Your task to perform on an android device: turn on improve location accuracy Image 0: 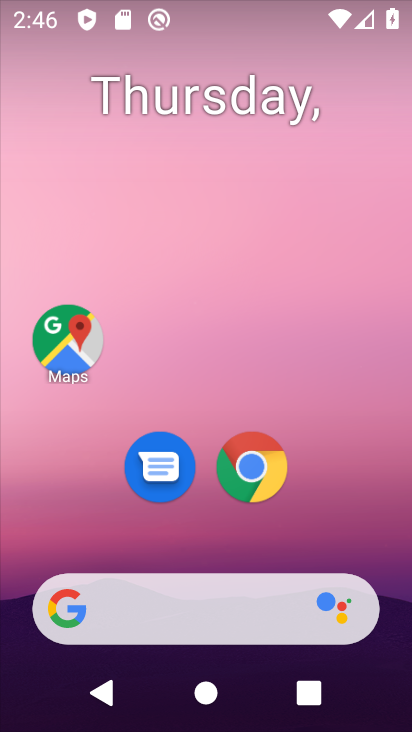
Step 0: drag from (193, 651) to (154, 58)
Your task to perform on an android device: turn on improve location accuracy Image 1: 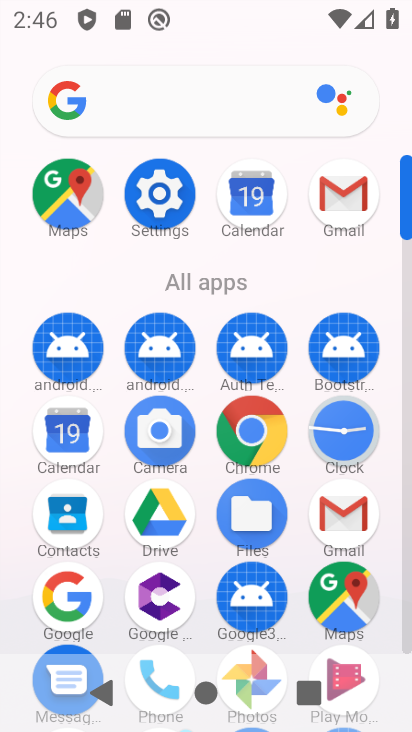
Step 1: click (160, 196)
Your task to perform on an android device: turn on improve location accuracy Image 2: 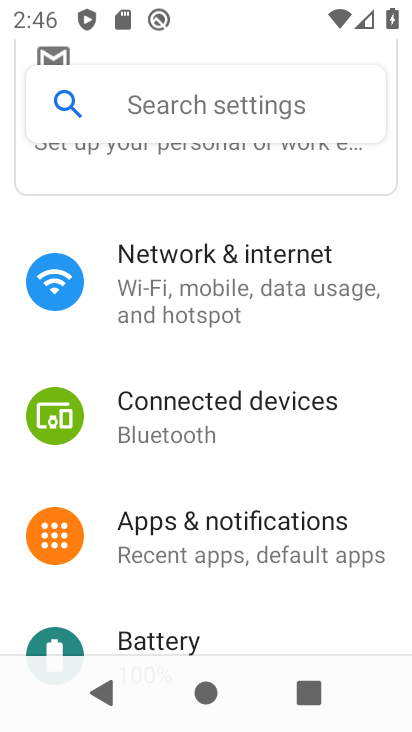
Step 2: drag from (215, 562) to (201, 3)
Your task to perform on an android device: turn on improve location accuracy Image 3: 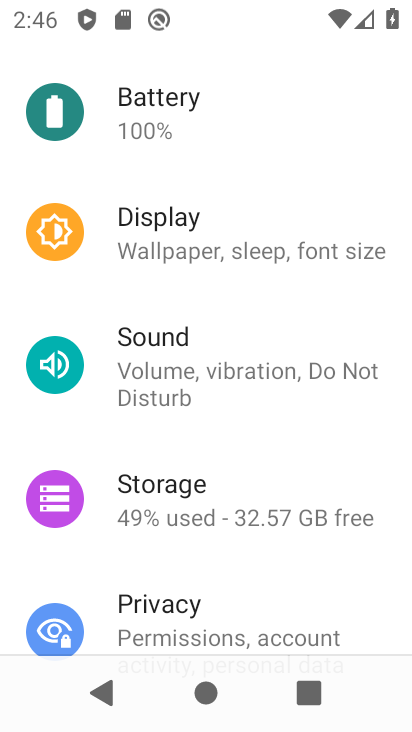
Step 3: drag from (266, 567) to (238, 208)
Your task to perform on an android device: turn on improve location accuracy Image 4: 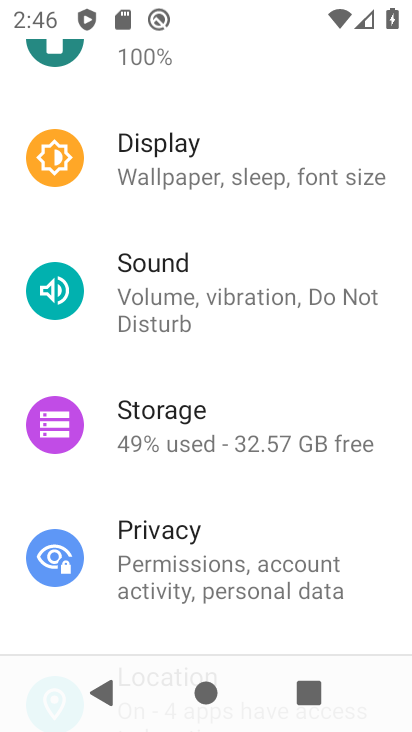
Step 4: drag from (196, 204) to (206, 12)
Your task to perform on an android device: turn on improve location accuracy Image 5: 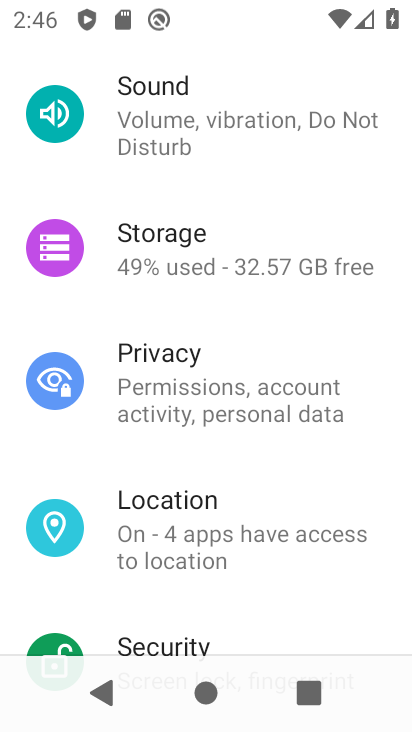
Step 5: click (154, 512)
Your task to perform on an android device: turn on improve location accuracy Image 6: 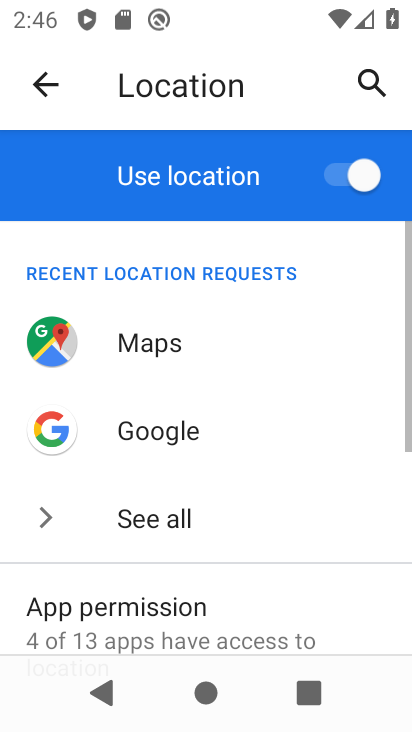
Step 6: drag from (240, 579) to (204, 44)
Your task to perform on an android device: turn on improve location accuracy Image 7: 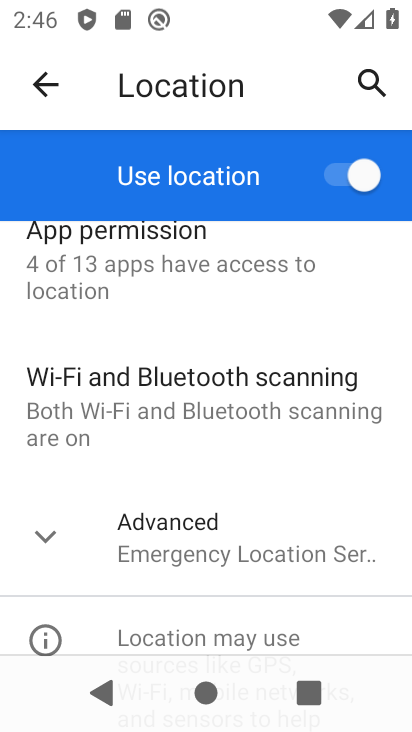
Step 7: click (202, 568)
Your task to perform on an android device: turn on improve location accuracy Image 8: 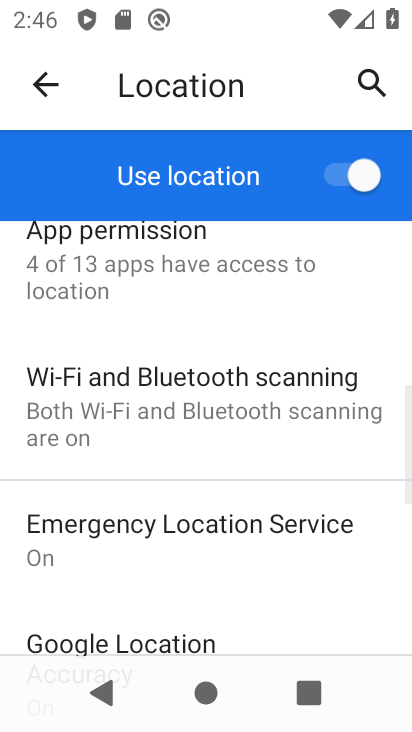
Step 8: drag from (225, 631) to (167, 202)
Your task to perform on an android device: turn on improve location accuracy Image 9: 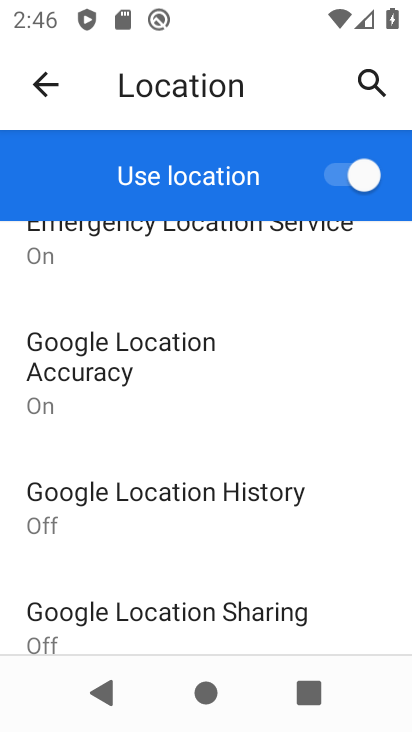
Step 9: click (125, 401)
Your task to perform on an android device: turn on improve location accuracy Image 10: 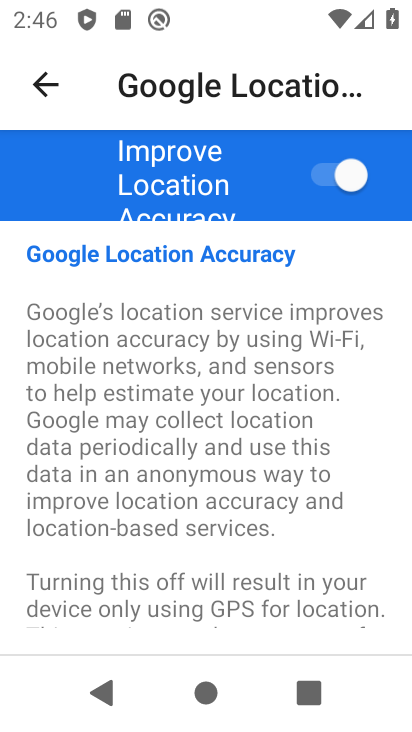
Step 10: click (320, 178)
Your task to perform on an android device: turn on improve location accuracy Image 11: 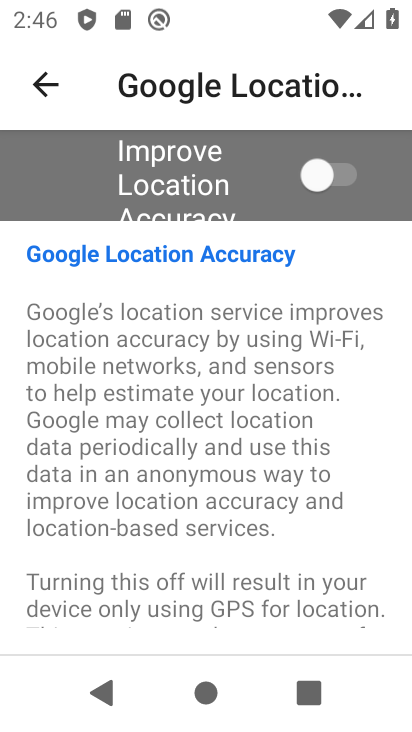
Step 11: task complete